Your task to perform on an android device: What's the weather going to be this weekend? Image 0: 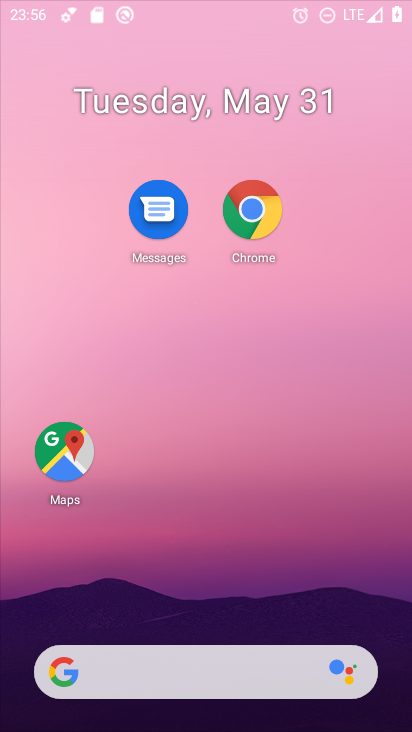
Step 0: press home button
Your task to perform on an android device: What's the weather going to be this weekend? Image 1: 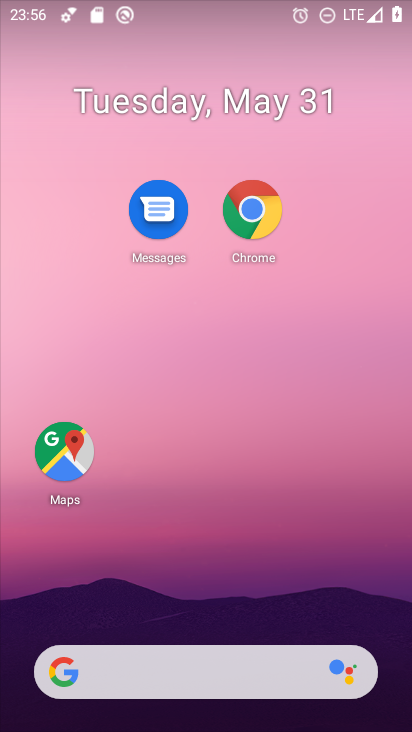
Step 1: drag from (10, 338) to (399, 336)
Your task to perform on an android device: What's the weather going to be this weekend? Image 2: 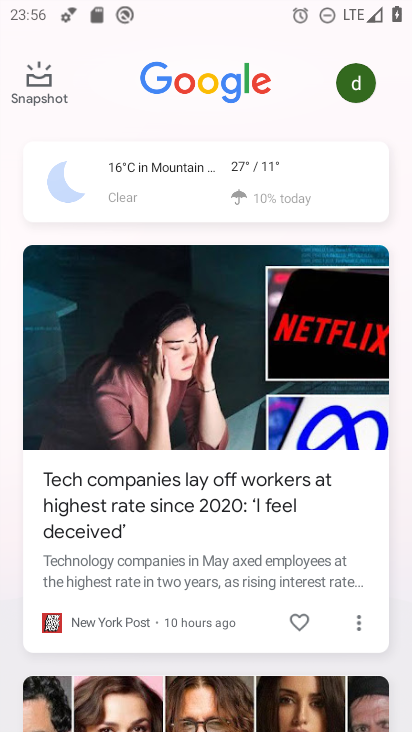
Step 2: click (265, 174)
Your task to perform on an android device: What's the weather going to be this weekend? Image 3: 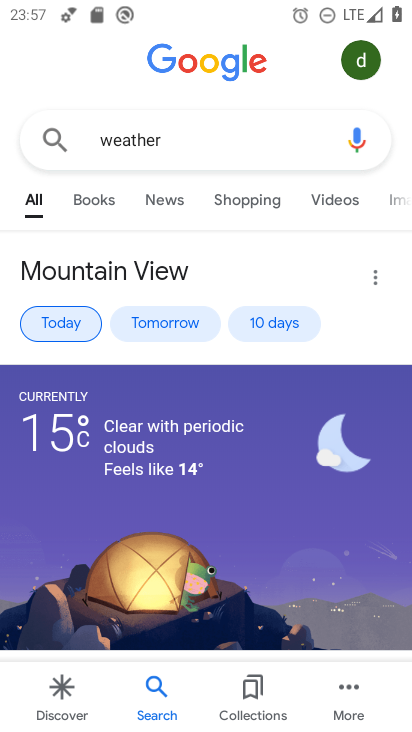
Step 3: click (271, 320)
Your task to perform on an android device: What's the weather going to be this weekend? Image 4: 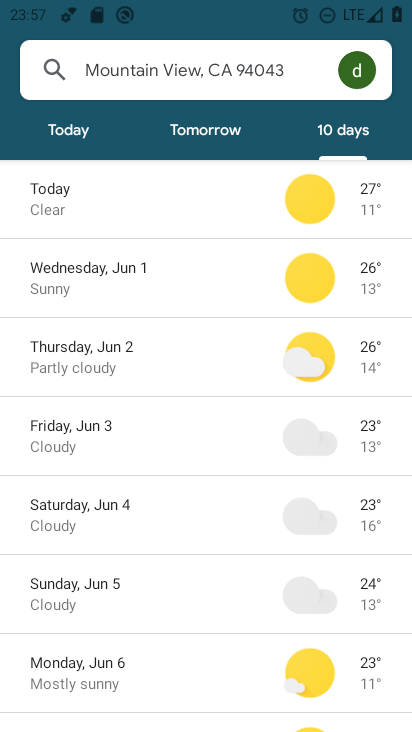
Step 4: task complete